Your task to perform on an android device: Open maps Image 0: 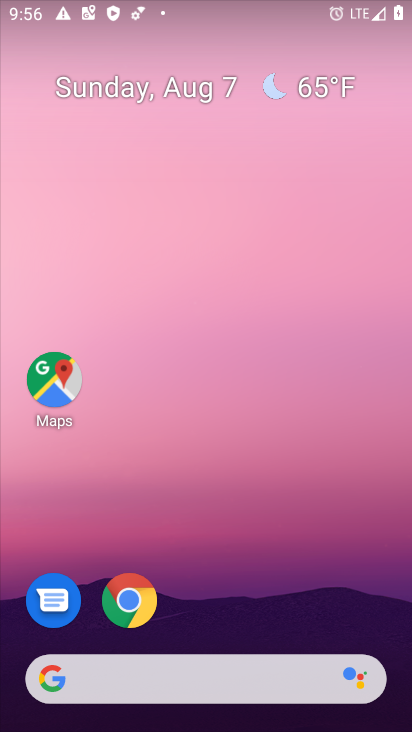
Step 0: click (60, 378)
Your task to perform on an android device: Open maps Image 1: 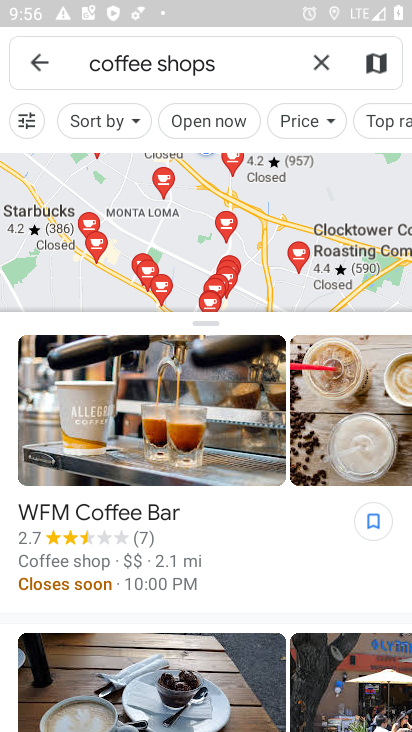
Step 1: task complete